Your task to perform on an android device: What is the news today? Image 0: 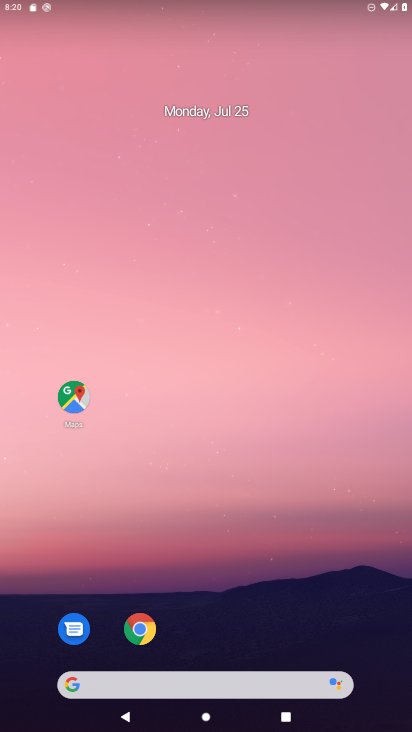
Step 0: drag from (265, 566) to (120, 11)
Your task to perform on an android device: What is the news today? Image 1: 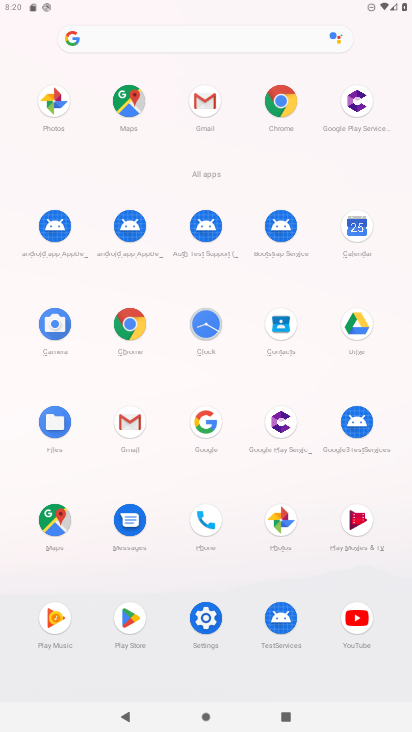
Step 1: click (363, 226)
Your task to perform on an android device: What is the news today? Image 2: 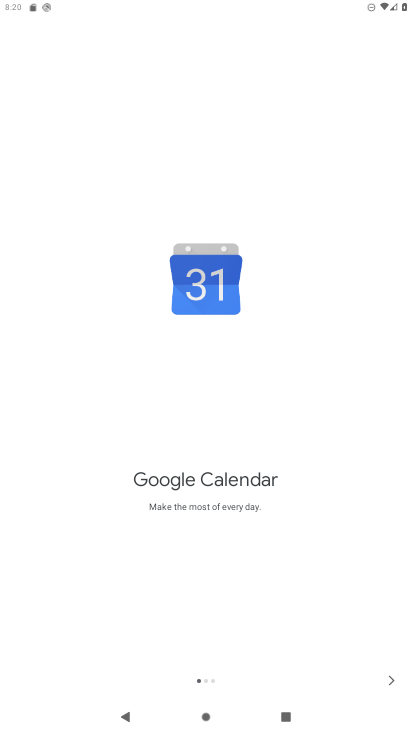
Step 2: click (374, 674)
Your task to perform on an android device: What is the news today? Image 3: 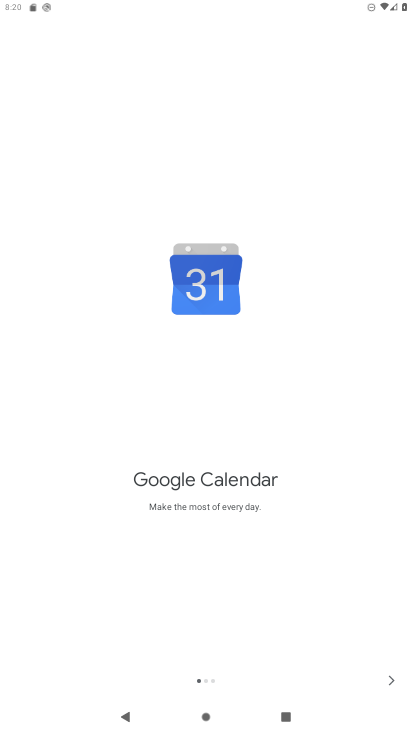
Step 3: click (374, 674)
Your task to perform on an android device: What is the news today? Image 4: 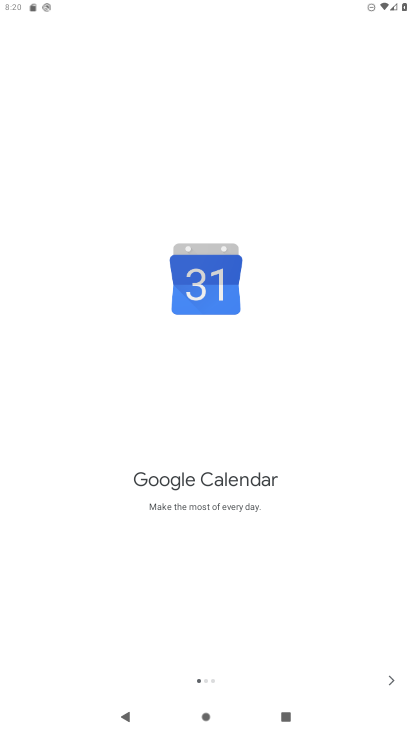
Step 4: click (386, 678)
Your task to perform on an android device: What is the news today? Image 5: 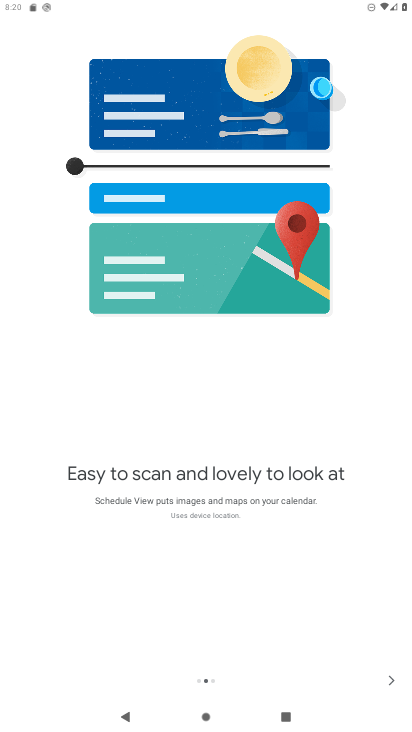
Step 5: click (386, 678)
Your task to perform on an android device: What is the news today? Image 6: 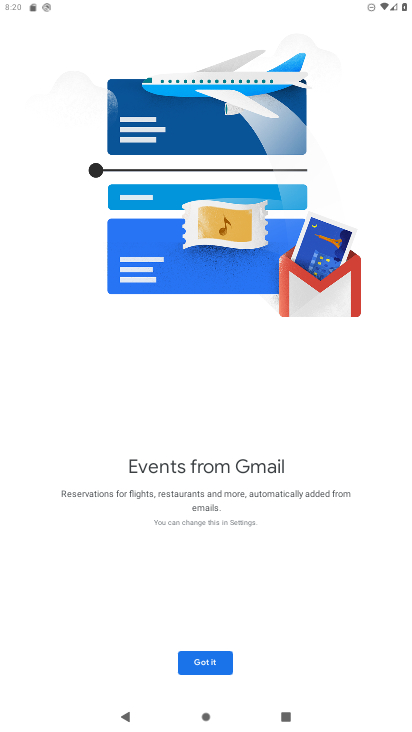
Step 6: click (201, 655)
Your task to perform on an android device: What is the news today? Image 7: 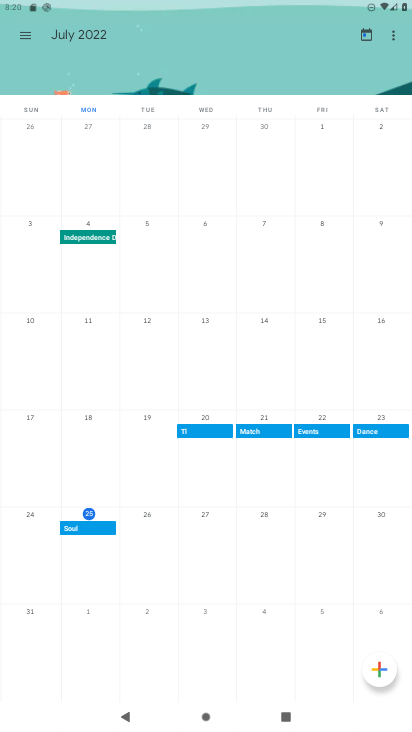
Step 7: click (140, 516)
Your task to perform on an android device: What is the news today? Image 8: 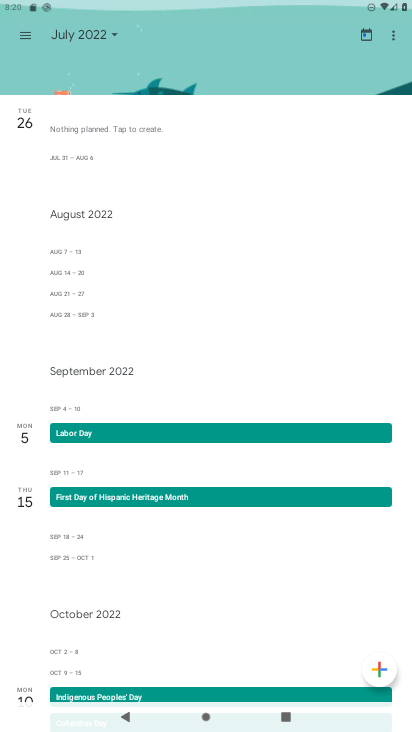
Step 8: task complete